Your task to perform on an android device: clear history in the chrome app Image 0: 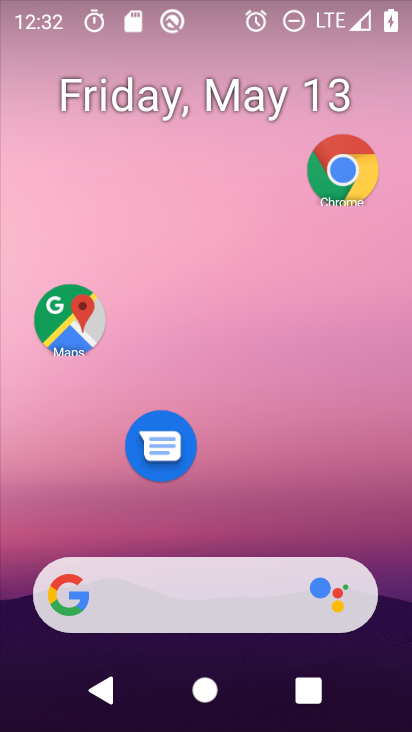
Step 0: drag from (250, 607) to (218, 46)
Your task to perform on an android device: clear history in the chrome app Image 1: 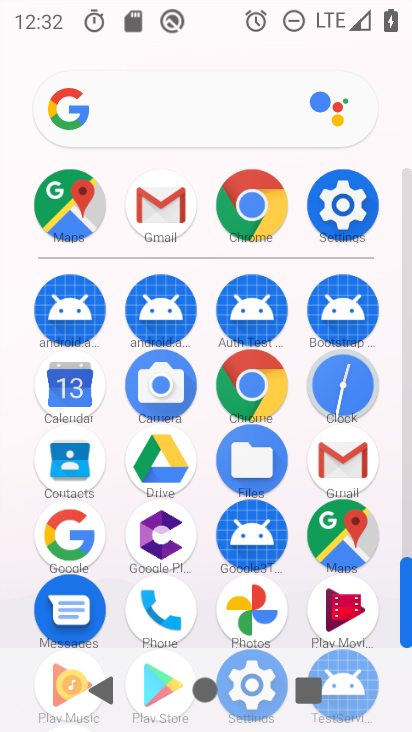
Step 1: click (253, 390)
Your task to perform on an android device: clear history in the chrome app Image 2: 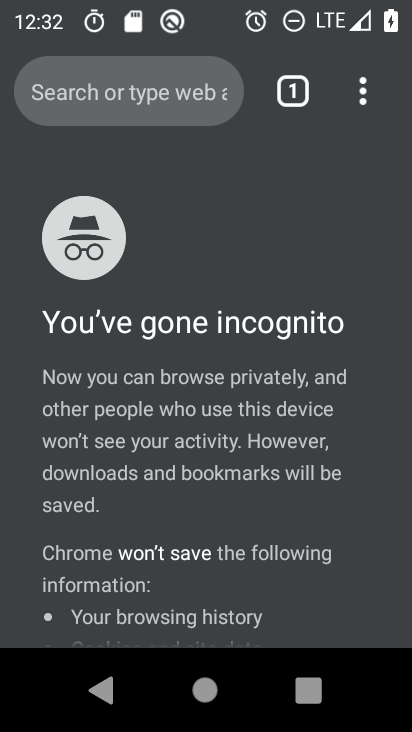
Step 2: drag from (374, 89) to (154, 444)
Your task to perform on an android device: clear history in the chrome app Image 3: 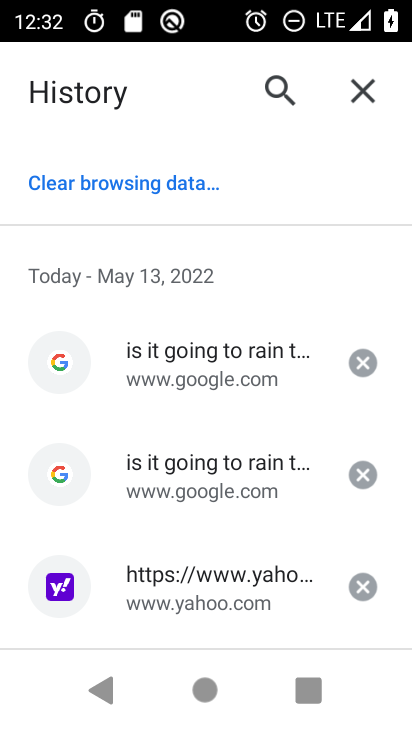
Step 3: click (204, 186)
Your task to perform on an android device: clear history in the chrome app Image 4: 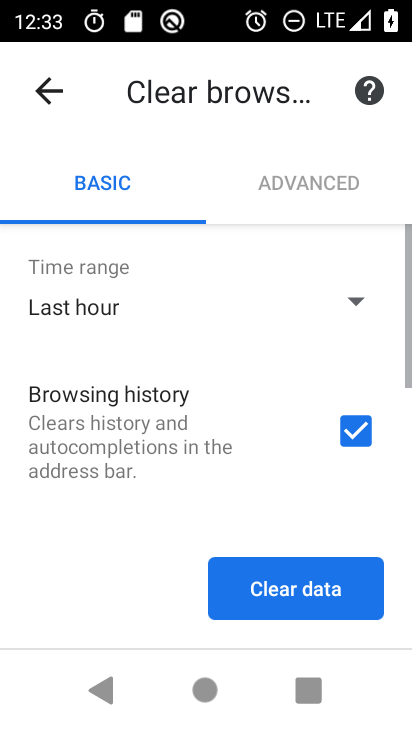
Step 4: click (350, 585)
Your task to perform on an android device: clear history in the chrome app Image 5: 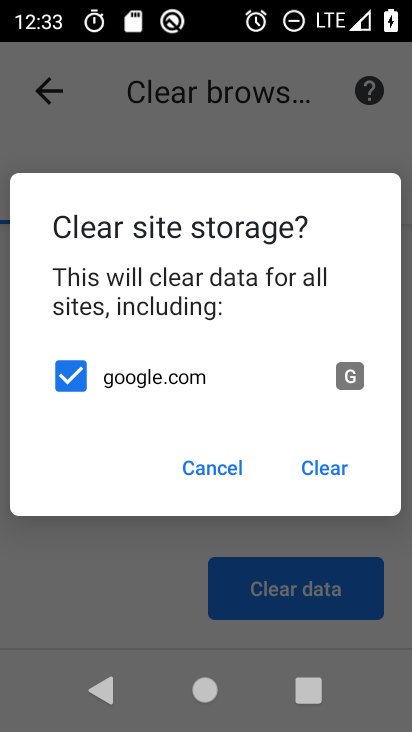
Step 5: click (334, 471)
Your task to perform on an android device: clear history in the chrome app Image 6: 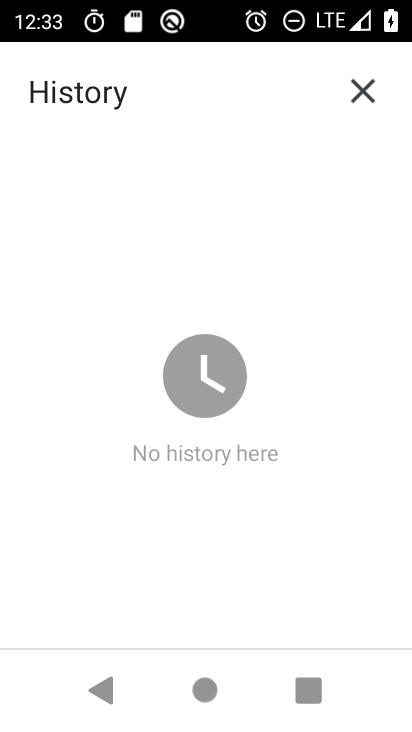
Step 6: task complete